Your task to perform on an android device: open sync settings in chrome Image 0: 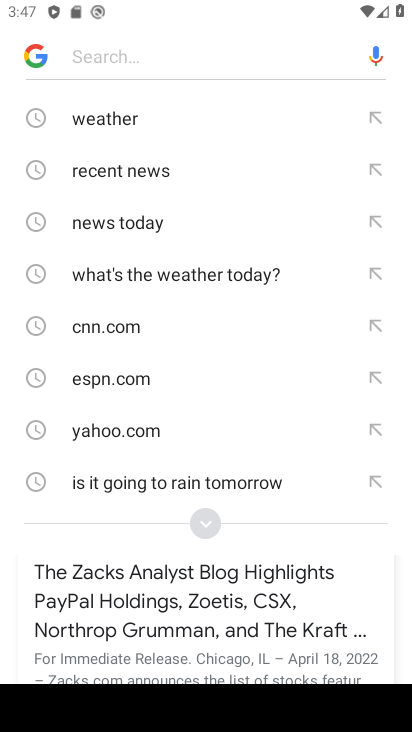
Step 0: press home button
Your task to perform on an android device: open sync settings in chrome Image 1: 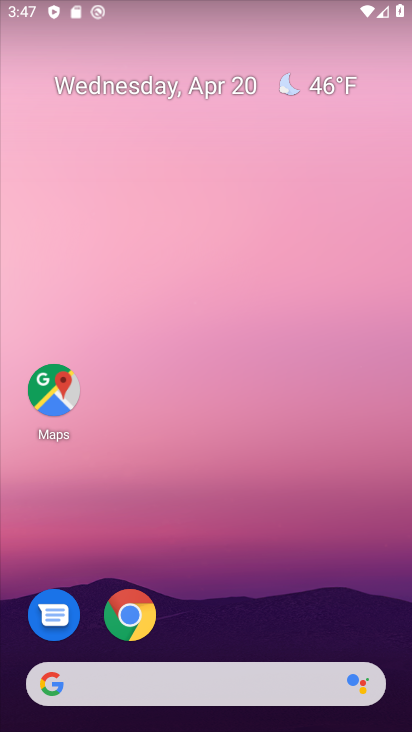
Step 1: click (143, 614)
Your task to perform on an android device: open sync settings in chrome Image 2: 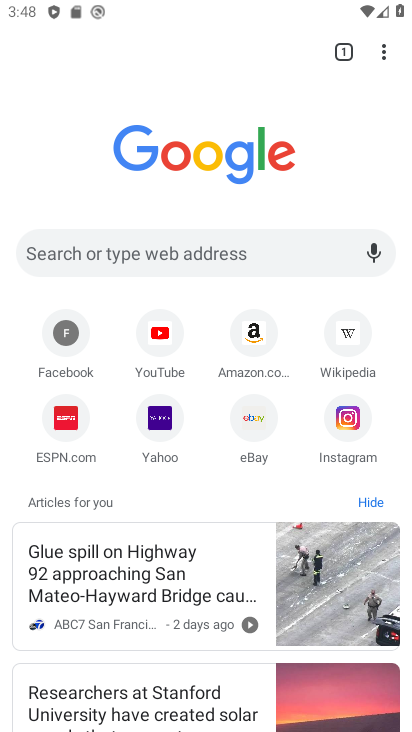
Step 2: drag from (384, 52) to (222, 427)
Your task to perform on an android device: open sync settings in chrome Image 3: 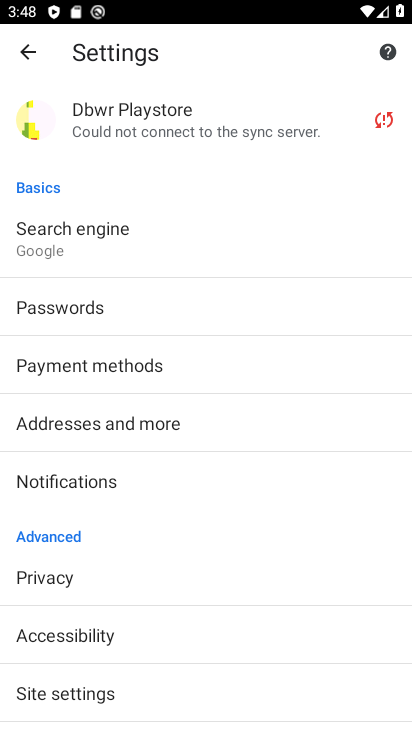
Step 3: click (117, 125)
Your task to perform on an android device: open sync settings in chrome Image 4: 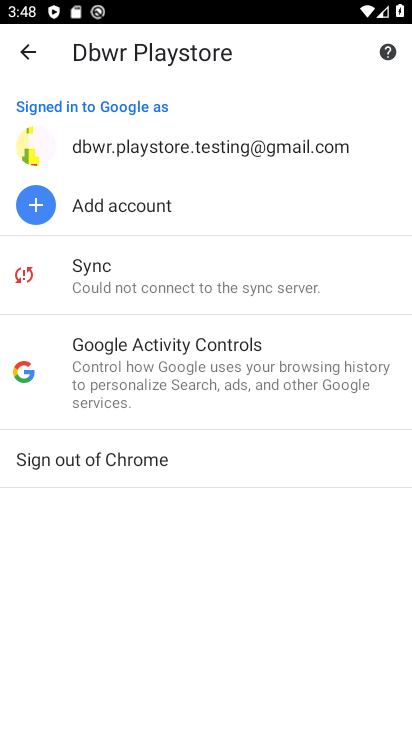
Step 4: task complete